Your task to perform on an android device: How do I get to the nearest Sprint Store? Image 0: 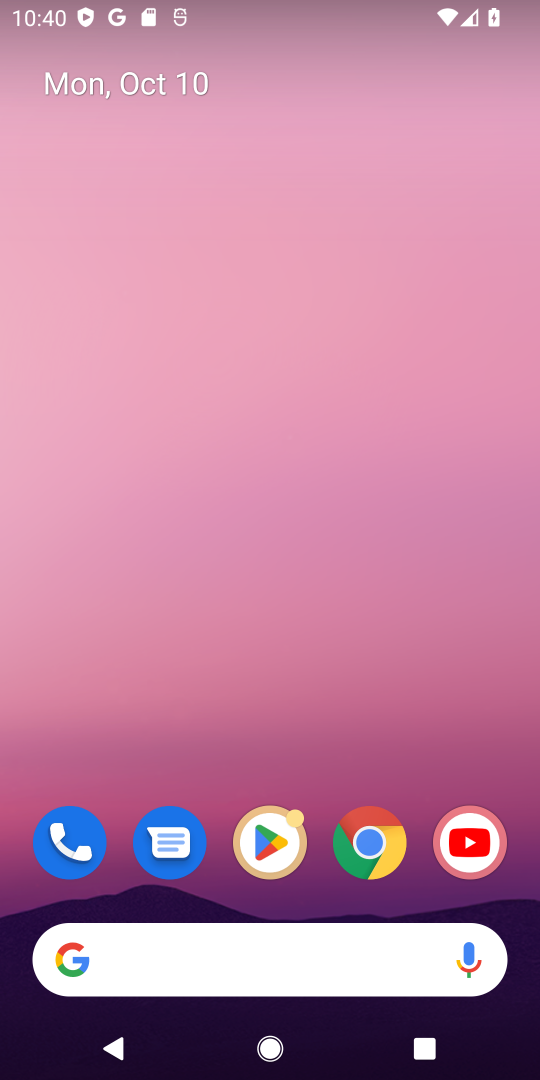
Step 0: click (188, 972)
Your task to perform on an android device: How do I get to the nearest Sprint Store? Image 1: 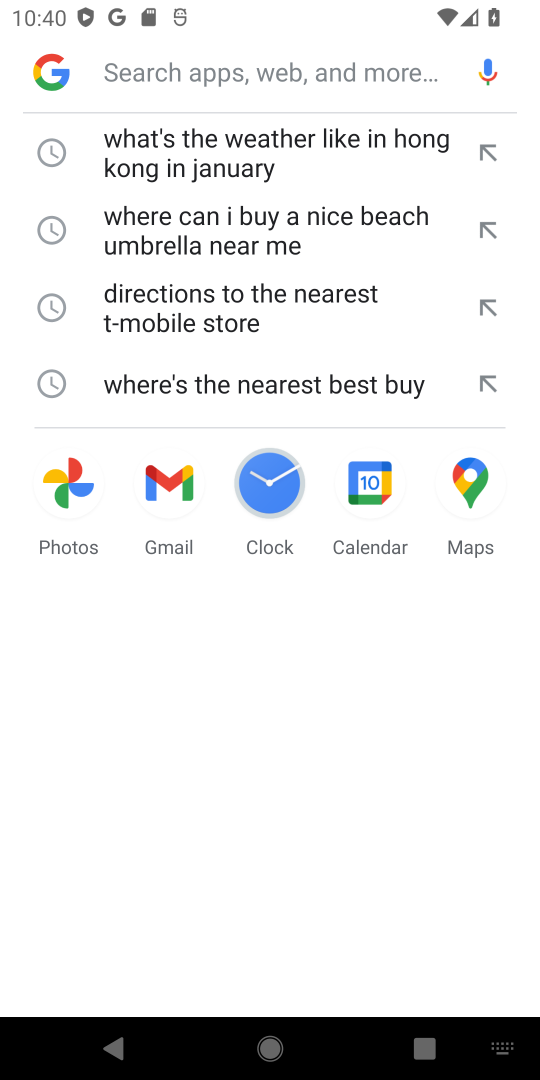
Step 1: click (145, 80)
Your task to perform on an android device: How do I get to the nearest Sprint Store? Image 2: 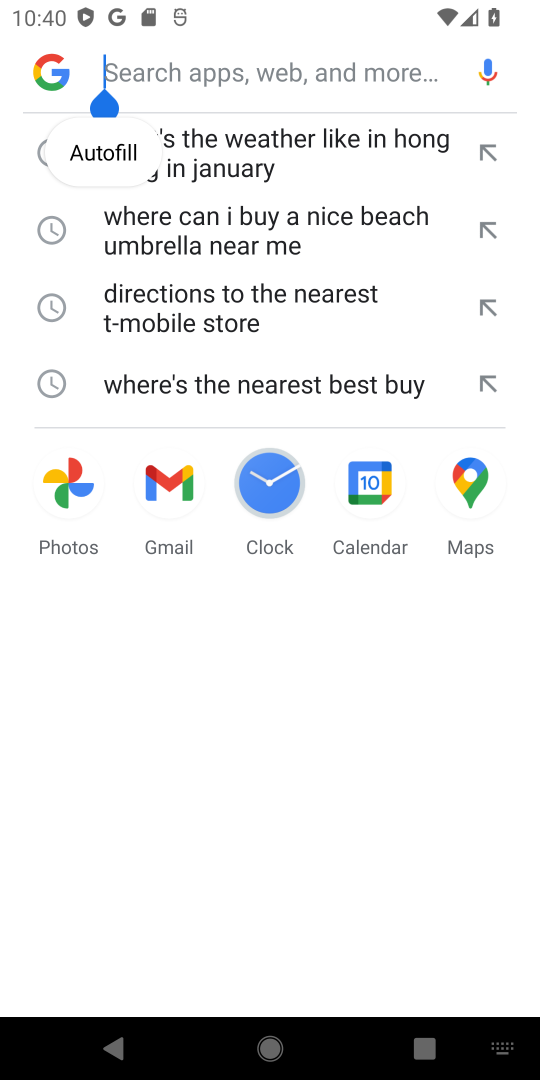
Step 2: type "How do I get to the nearest Sprint Store?"
Your task to perform on an android device: How do I get to the nearest Sprint Store? Image 3: 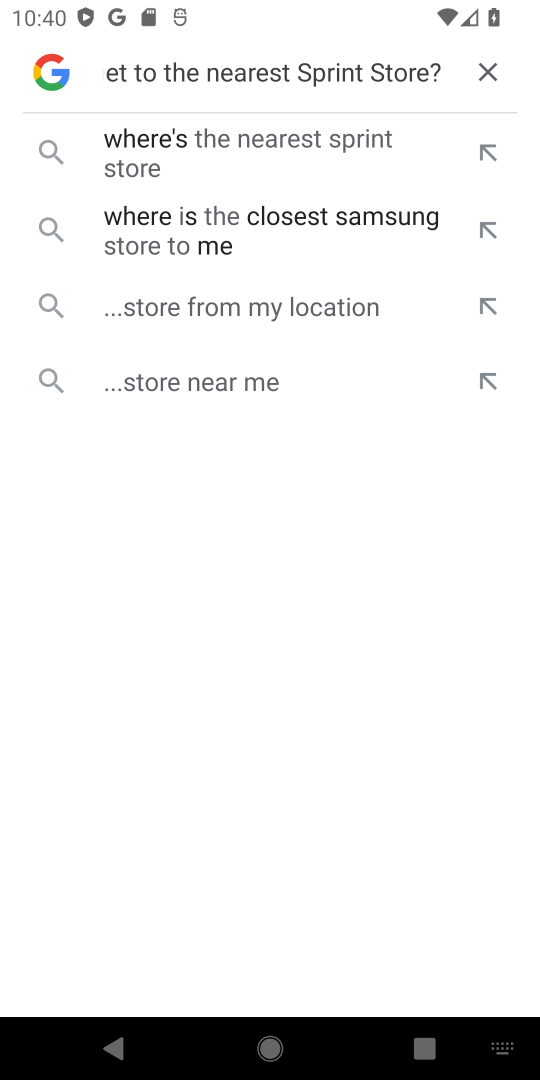
Step 3: click (182, 140)
Your task to perform on an android device: How do I get to the nearest Sprint Store? Image 4: 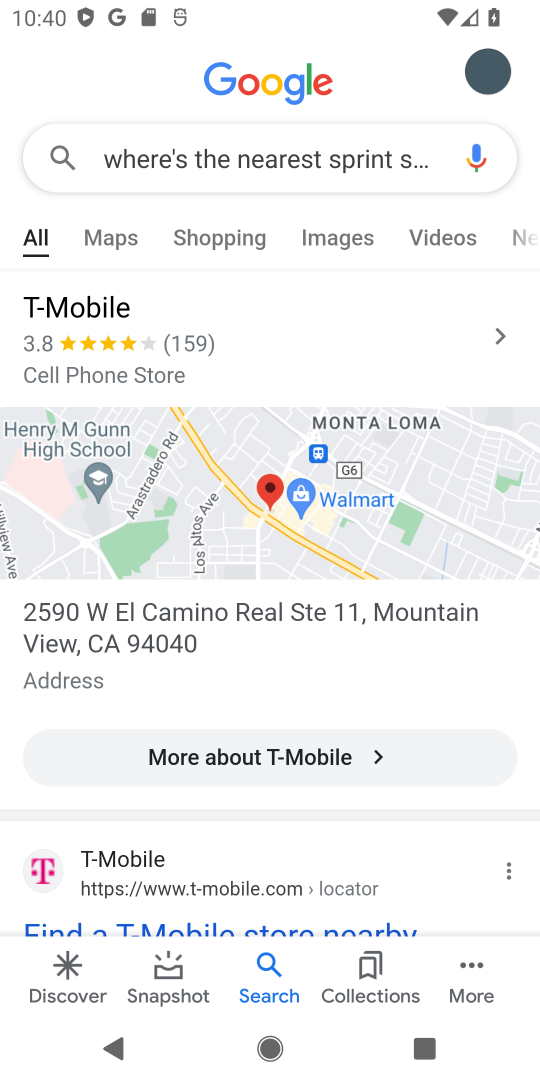
Step 4: task complete